Your task to perform on an android device: turn off picture-in-picture Image 0: 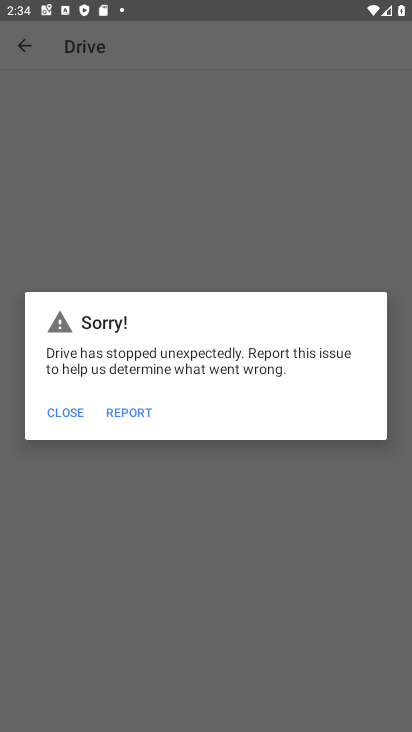
Step 0: press home button
Your task to perform on an android device: turn off picture-in-picture Image 1: 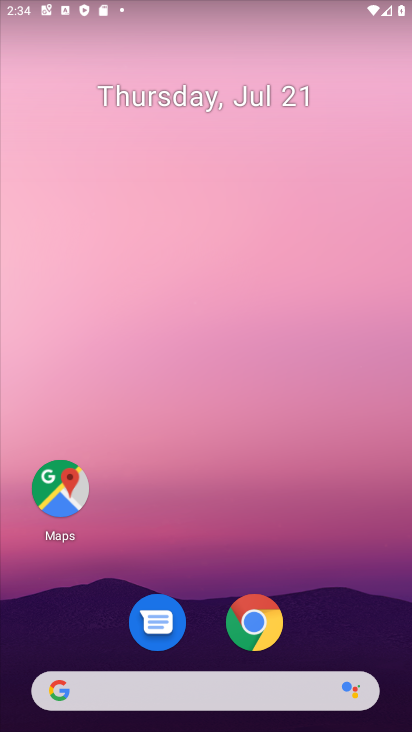
Step 1: drag from (234, 712) to (334, 107)
Your task to perform on an android device: turn off picture-in-picture Image 2: 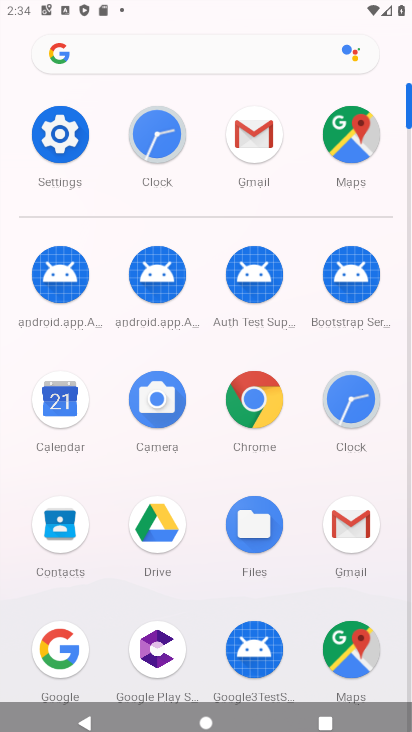
Step 2: drag from (295, 599) to (288, 282)
Your task to perform on an android device: turn off picture-in-picture Image 3: 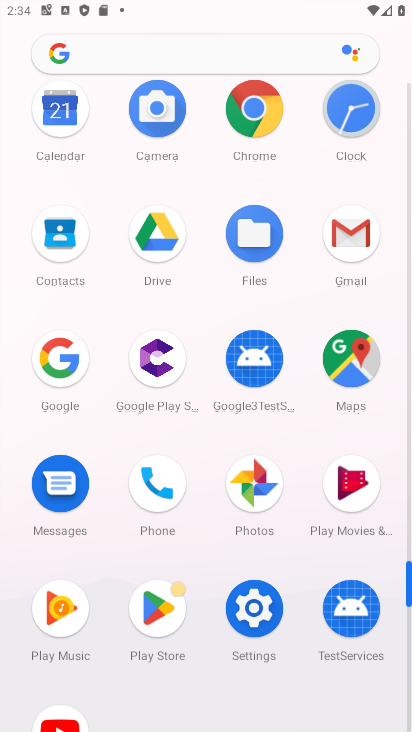
Step 3: click (67, 724)
Your task to perform on an android device: turn off picture-in-picture Image 4: 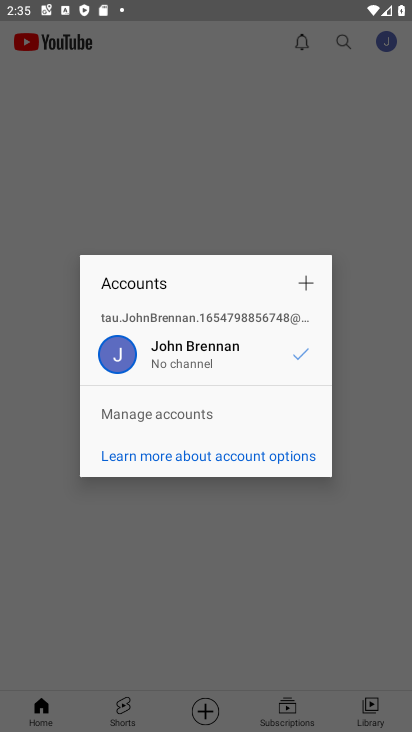
Step 4: click (181, 359)
Your task to perform on an android device: turn off picture-in-picture Image 5: 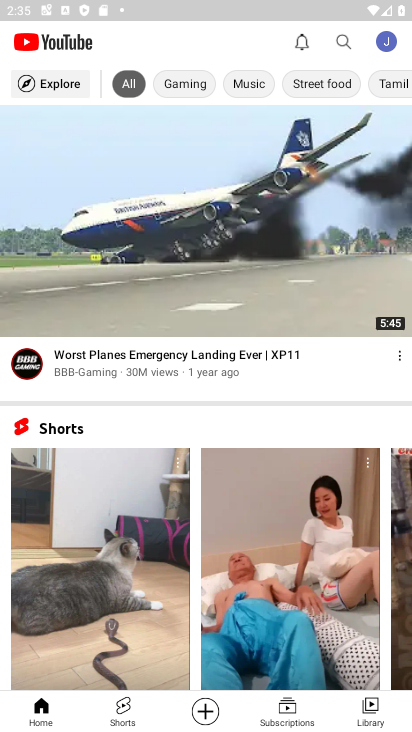
Step 5: click (380, 60)
Your task to perform on an android device: turn off picture-in-picture Image 6: 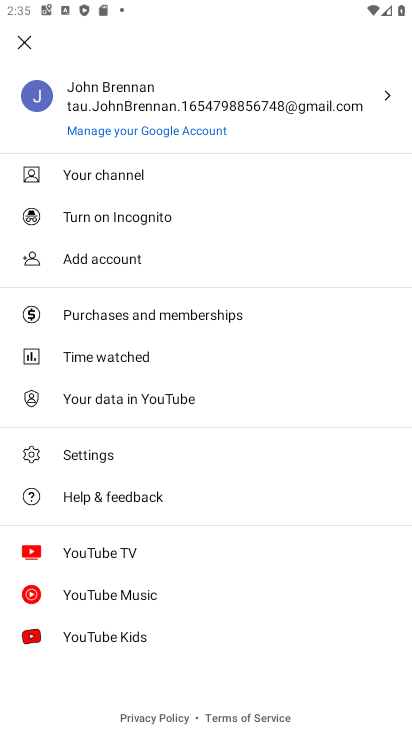
Step 6: click (73, 450)
Your task to perform on an android device: turn off picture-in-picture Image 7: 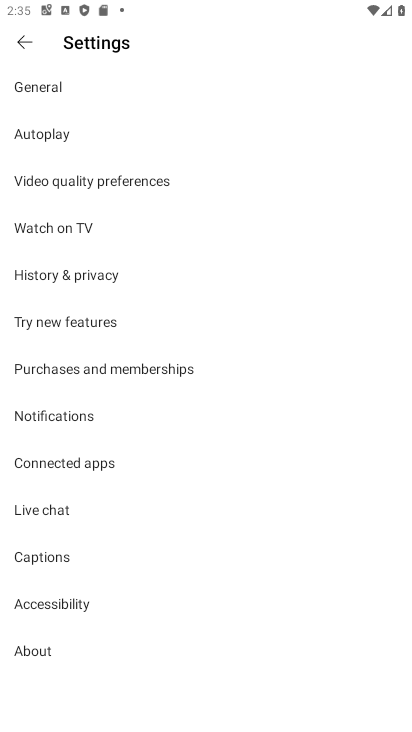
Step 7: click (46, 88)
Your task to perform on an android device: turn off picture-in-picture Image 8: 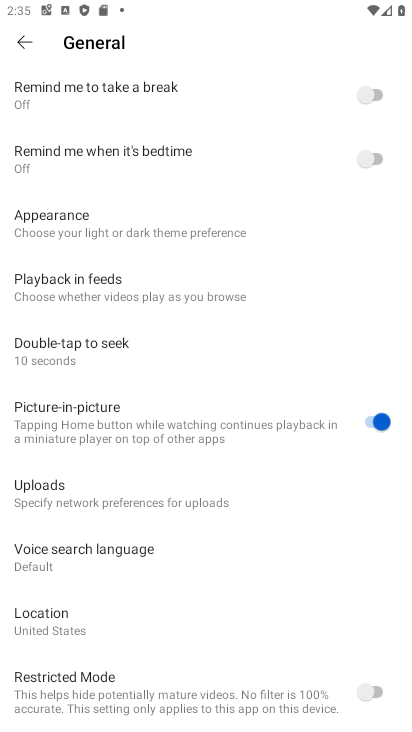
Step 8: click (134, 420)
Your task to perform on an android device: turn off picture-in-picture Image 9: 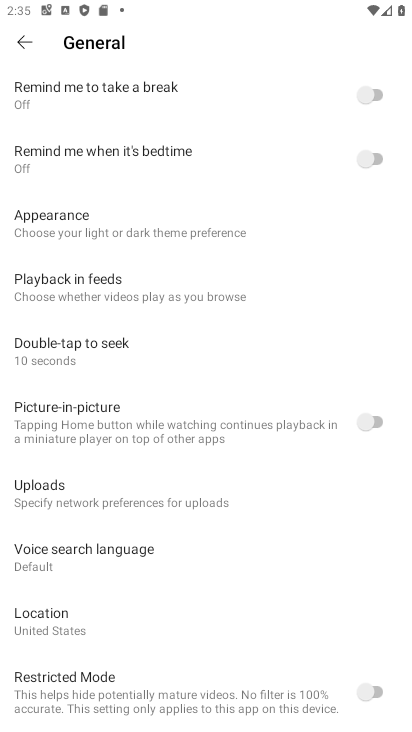
Step 9: task complete